Your task to perform on an android device: Search for a new hair product Image 0: 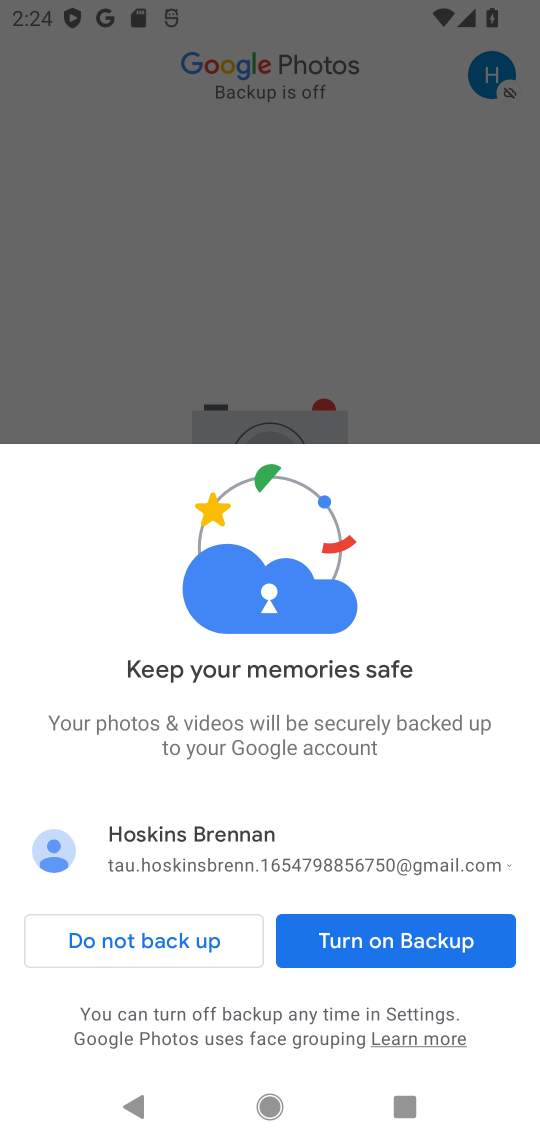
Step 0: press home button
Your task to perform on an android device: Search for a new hair product Image 1: 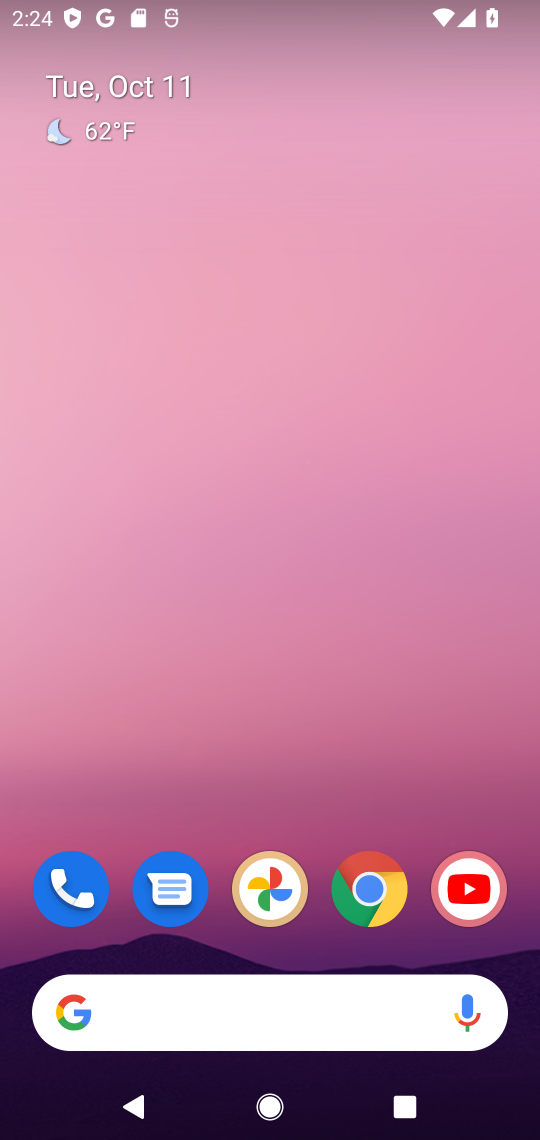
Step 1: drag from (288, 848) to (318, 356)
Your task to perform on an android device: Search for a new hair product Image 2: 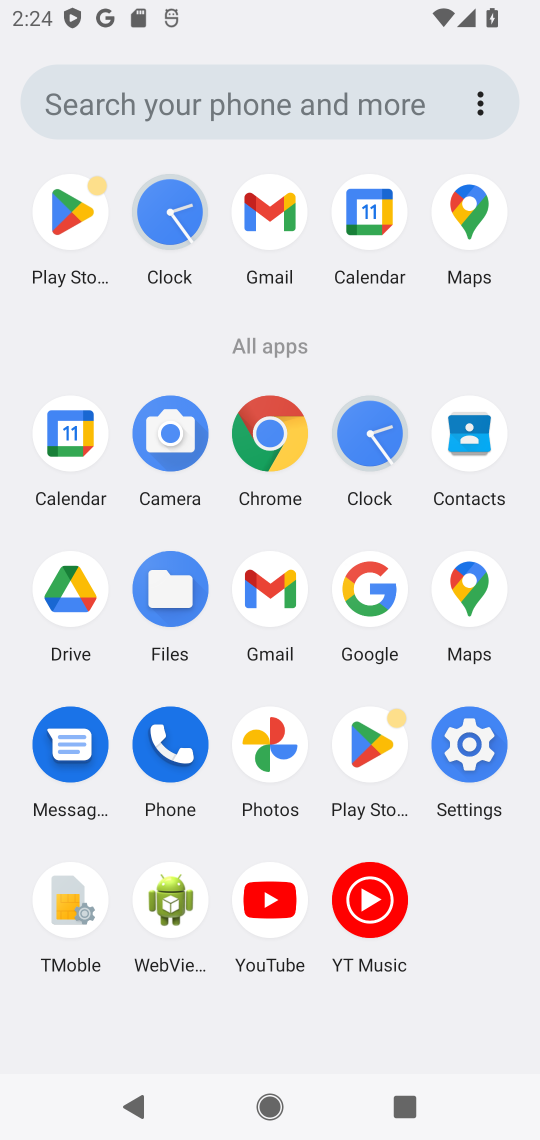
Step 2: click (375, 605)
Your task to perform on an android device: Search for a new hair product Image 3: 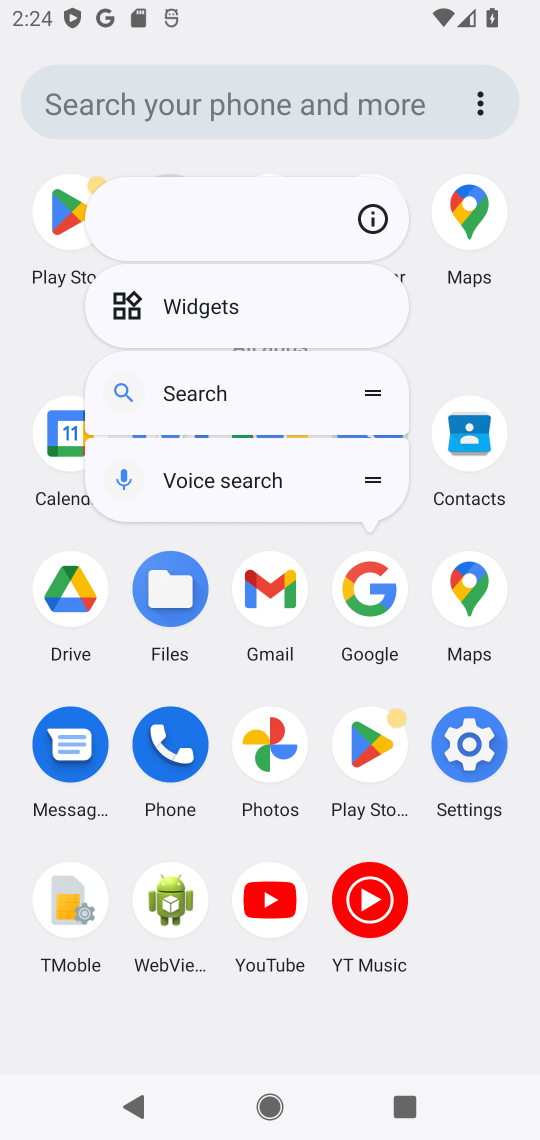
Step 3: click (372, 585)
Your task to perform on an android device: Search for a new hair product Image 4: 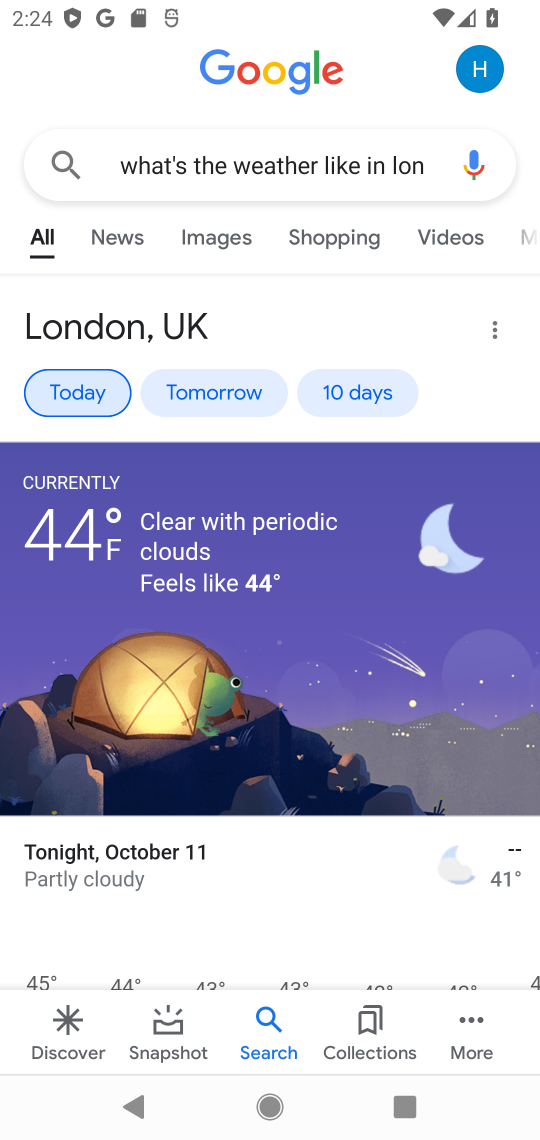
Step 4: click (311, 159)
Your task to perform on an android device: Search for a new hair product Image 5: 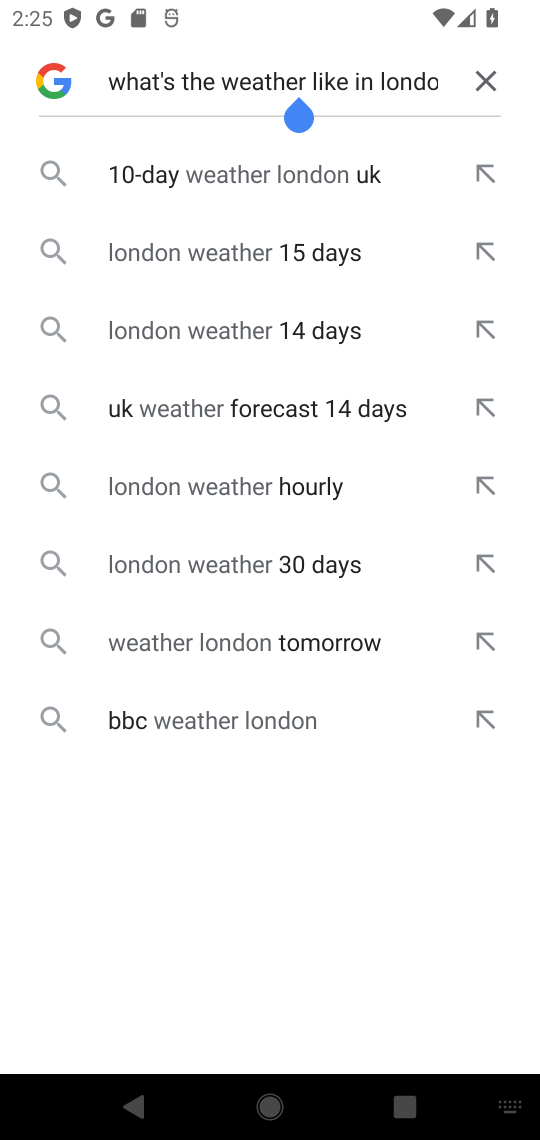
Step 5: click (466, 75)
Your task to perform on an android device: Search for a new hair product Image 6: 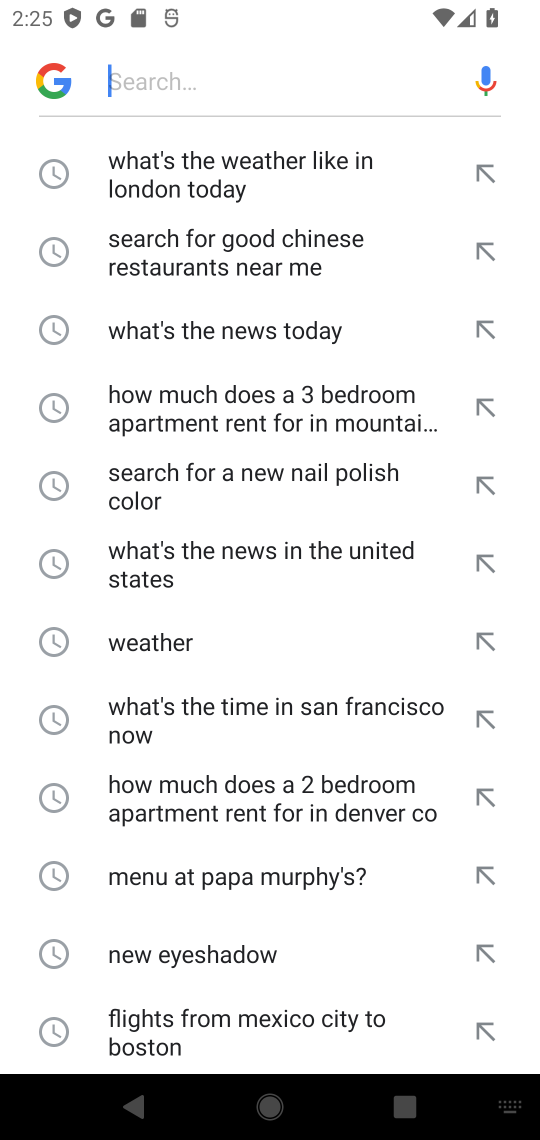
Step 6: click (282, 30)
Your task to perform on an android device: Search for a new hair product Image 7: 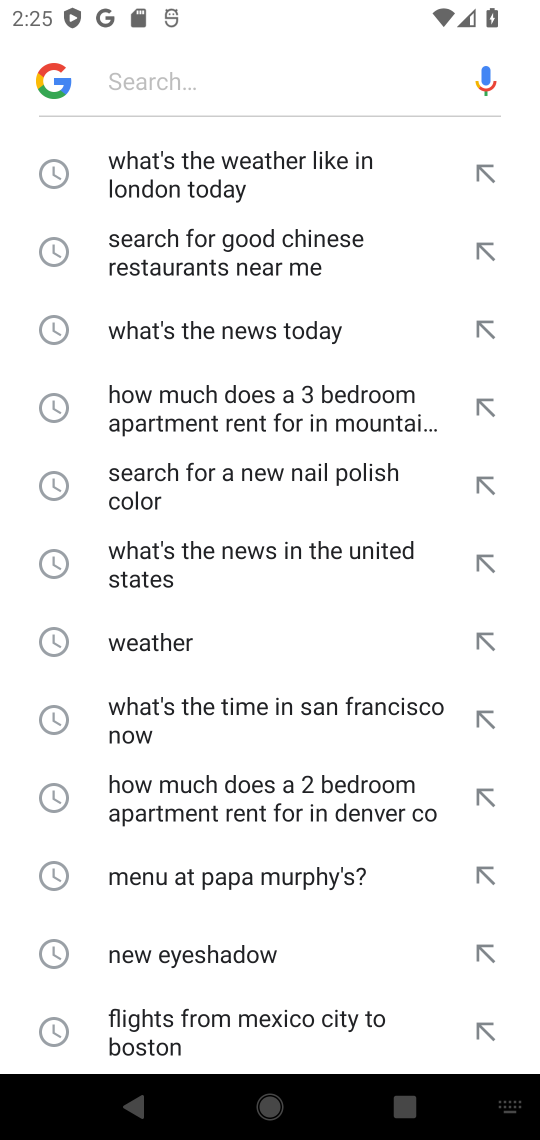
Step 7: click (324, 83)
Your task to perform on an android device: Search for a new hair product Image 8: 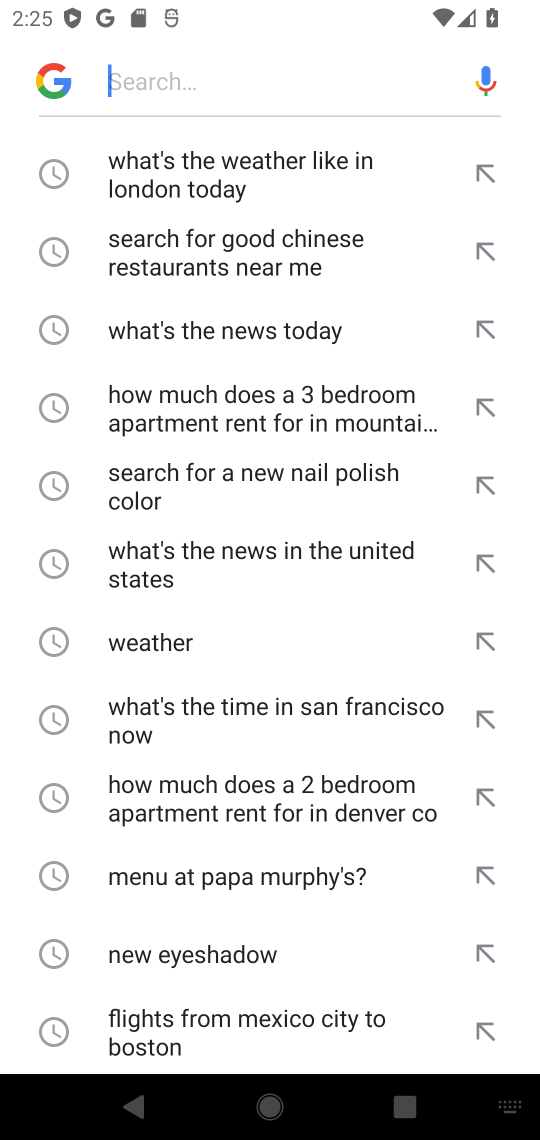
Step 8: type "Search for a new hair product "
Your task to perform on an android device: Search for a new hair product Image 9: 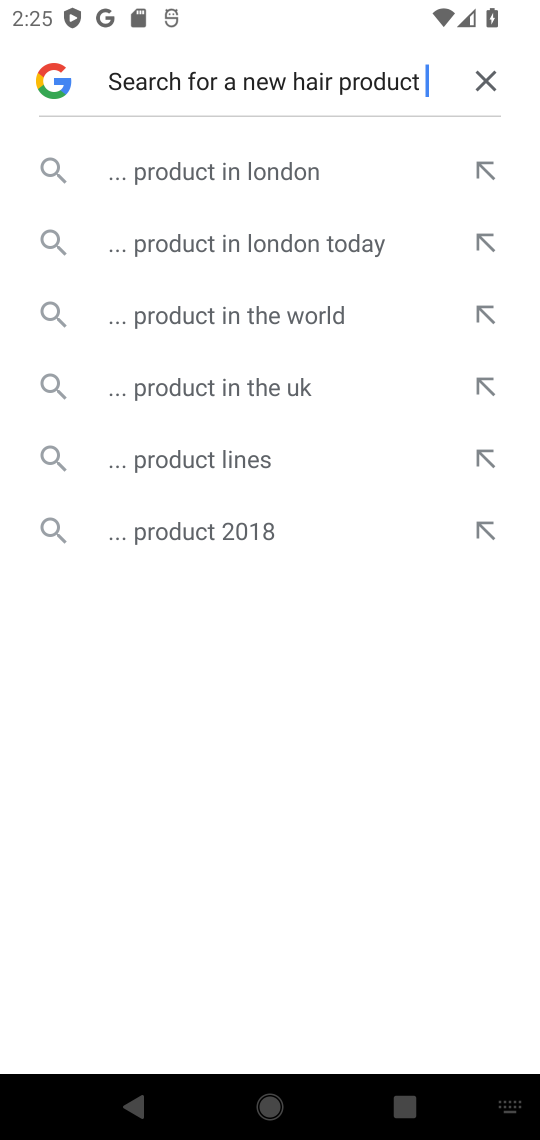
Step 9: click (297, 314)
Your task to perform on an android device: Search for a new hair product Image 10: 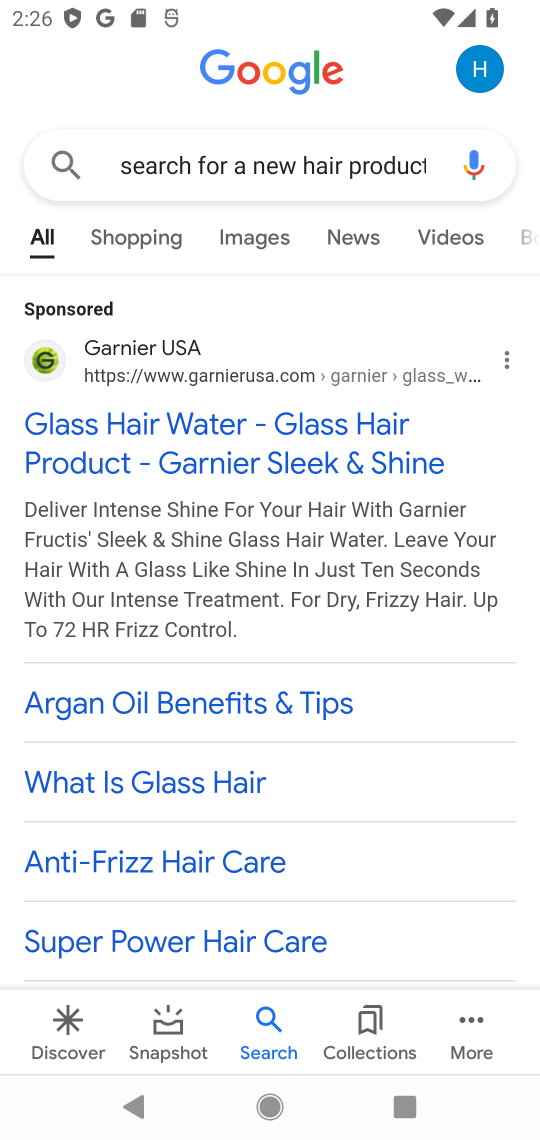
Step 10: click (201, 439)
Your task to perform on an android device: Search for a new hair product Image 11: 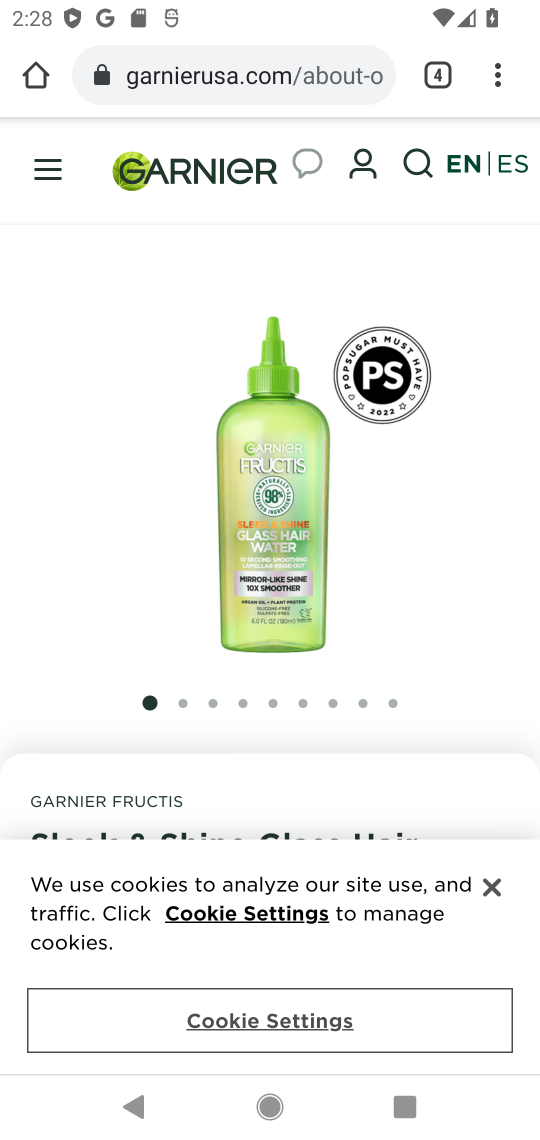
Step 11: drag from (431, 797) to (488, 371)
Your task to perform on an android device: Search for a new hair product Image 12: 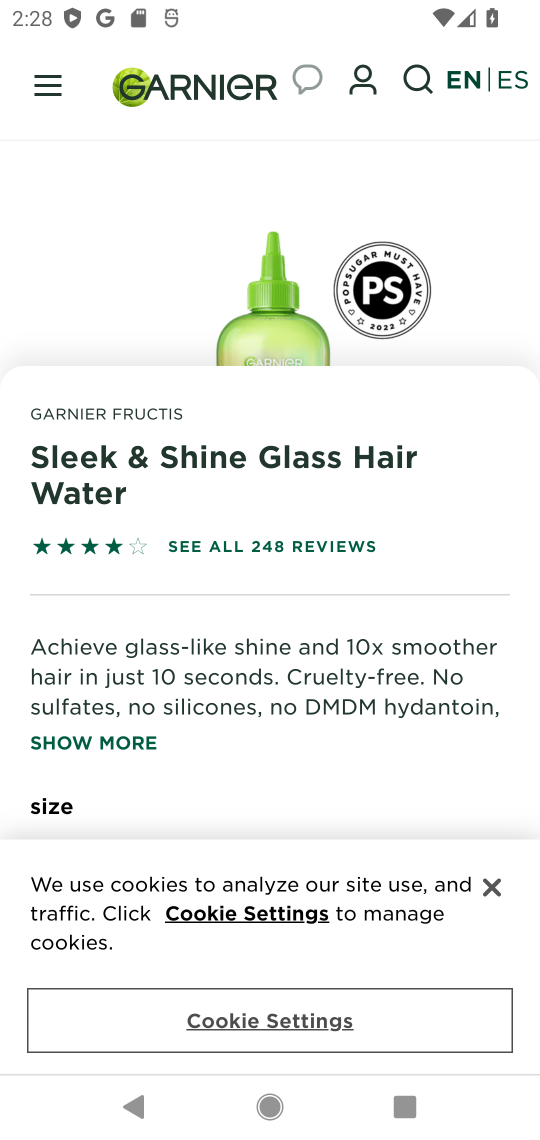
Step 12: click (486, 886)
Your task to perform on an android device: Search for a new hair product Image 13: 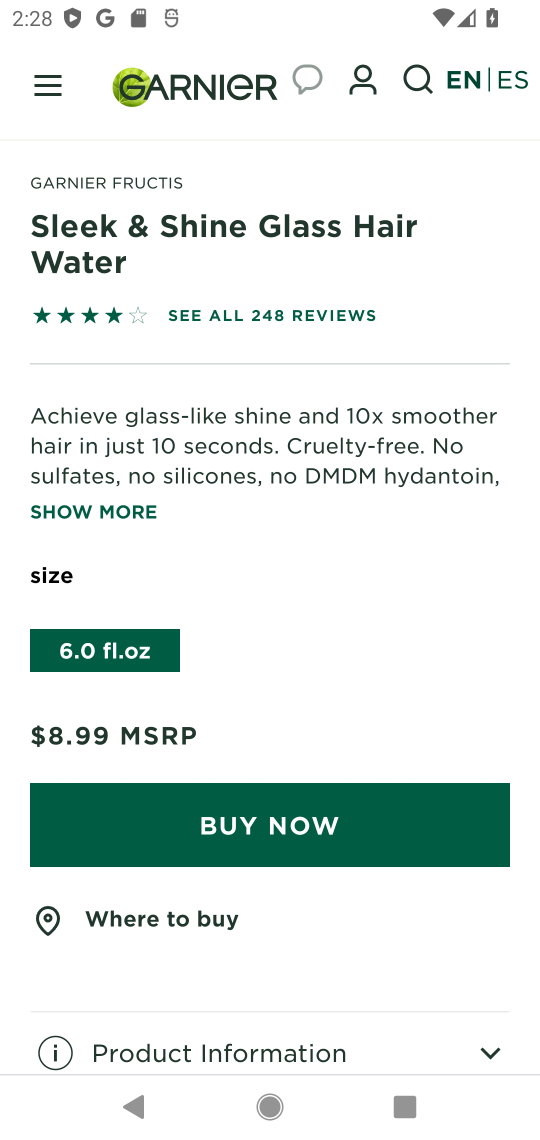
Step 13: click (486, 889)
Your task to perform on an android device: Search for a new hair product Image 14: 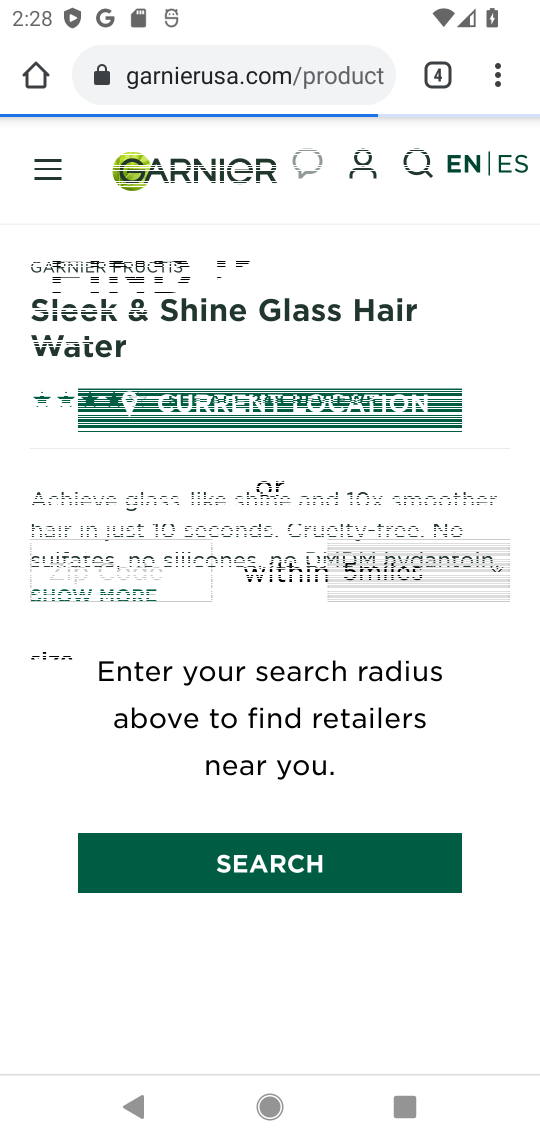
Step 14: task complete